Your task to perform on an android device: What's the weather going to be this weekend? Image 0: 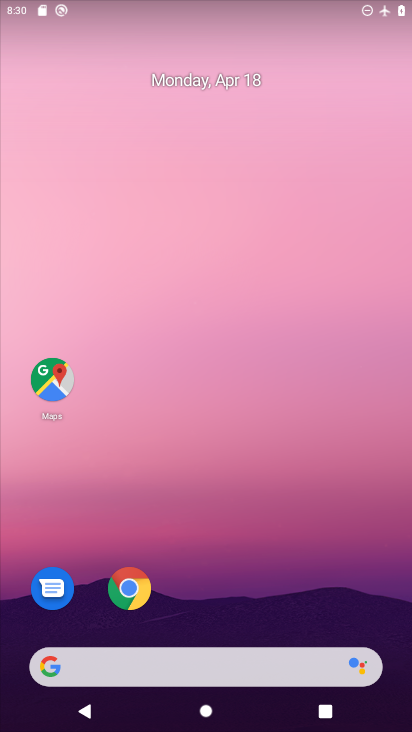
Step 0: click (138, 587)
Your task to perform on an android device: What's the weather going to be this weekend? Image 1: 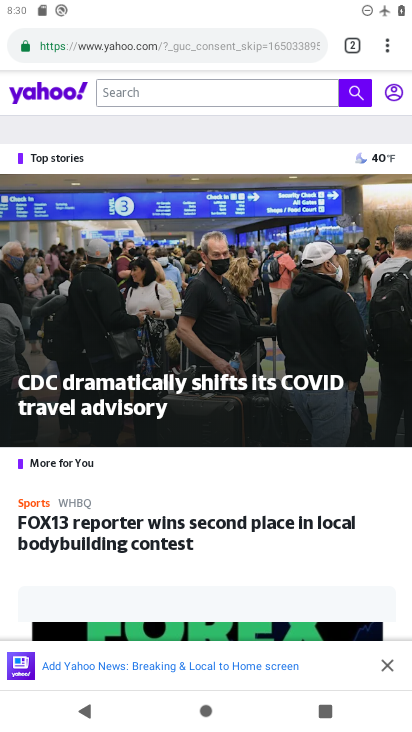
Step 1: click (352, 47)
Your task to perform on an android device: What's the weather going to be this weekend? Image 2: 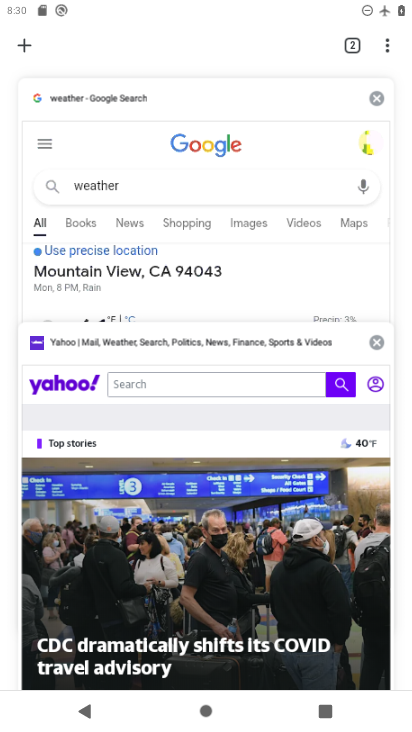
Step 2: click (17, 39)
Your task to perform on an android device: What's the weather going to be this weekend? Image 3: 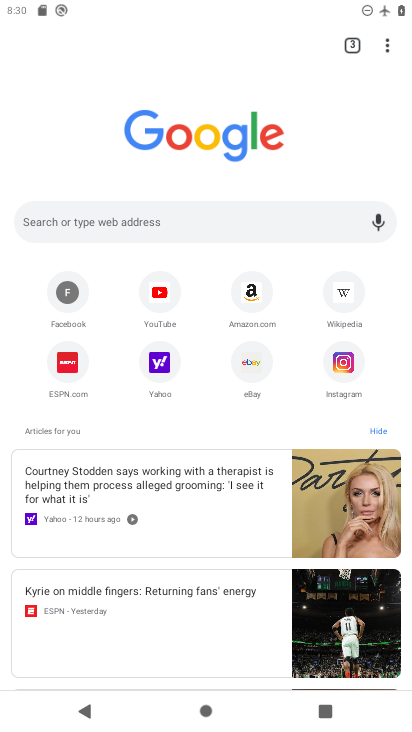
Step 3: click (124, 219)
Your task to perform on an android device: What's the weather going to be this weekend? Image 4: 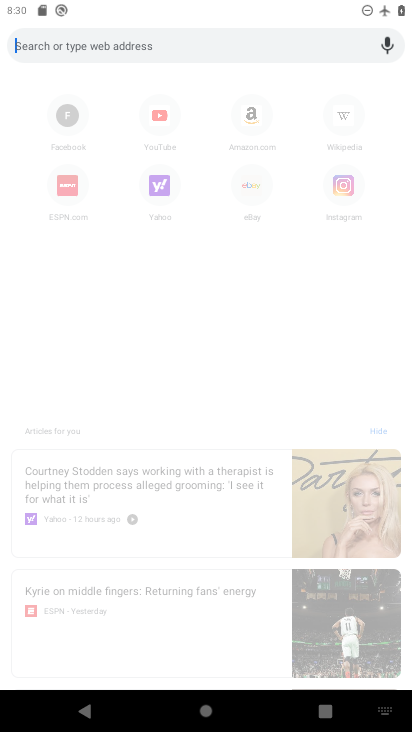
Step 4: type "weather going to be this weekend"
Your task to perform on an android device: What's the weather going to be this weekend? Image 5: 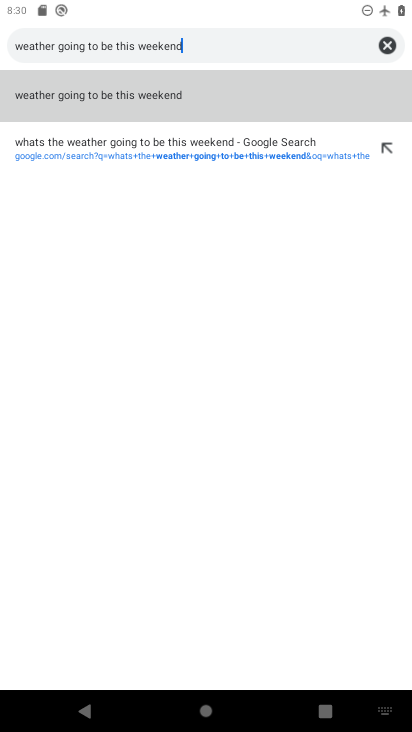
Step 5: click (124, 139)
Your task to perform on an android device: What's the weather going to be this weekend? Image 6: 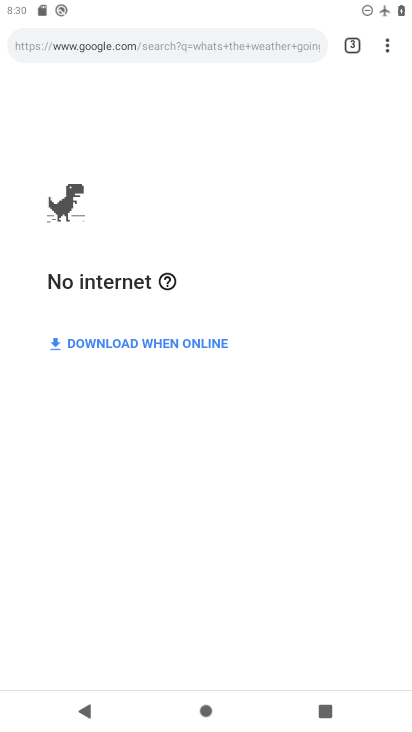
Step 6: task complete